Your task to perform on an android device: open app "LiveIn - Share Your Moment" Image 0: 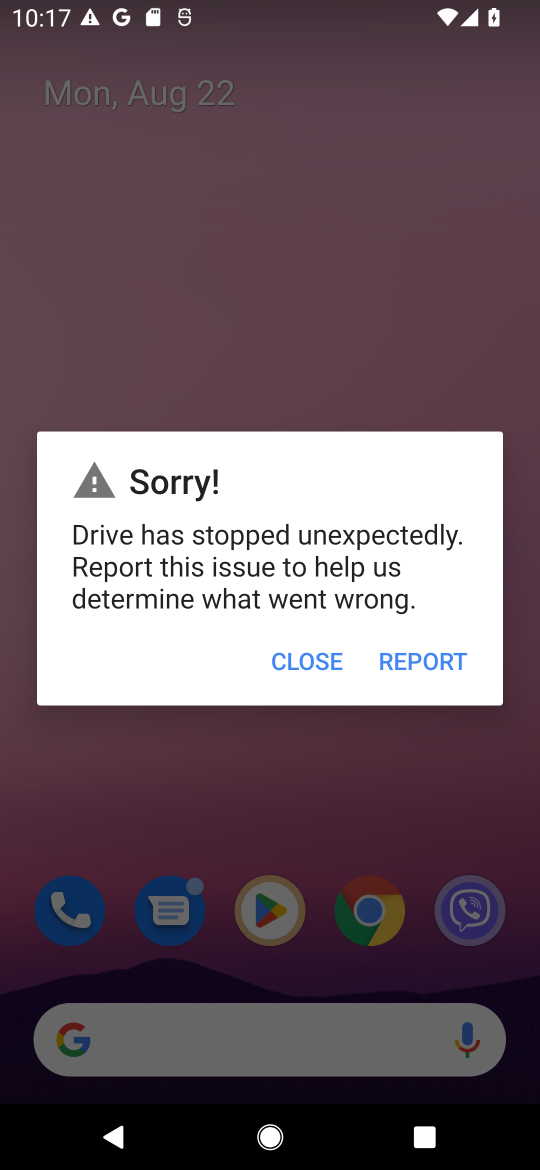
Step 0: click (296, 665)
Your task to perform on an android device: open app "LiveIn - Share Your Moment" Image 1: 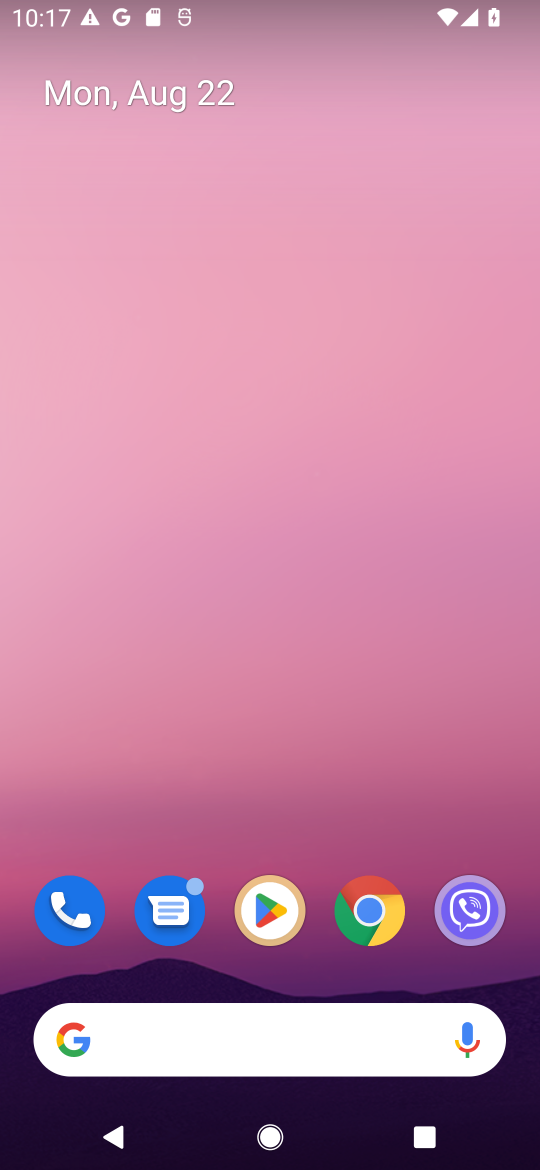
Step 1: click (269, 905)
Your task to perform on an android device: open app "LiveIn - Share Your Moment" Image 2: 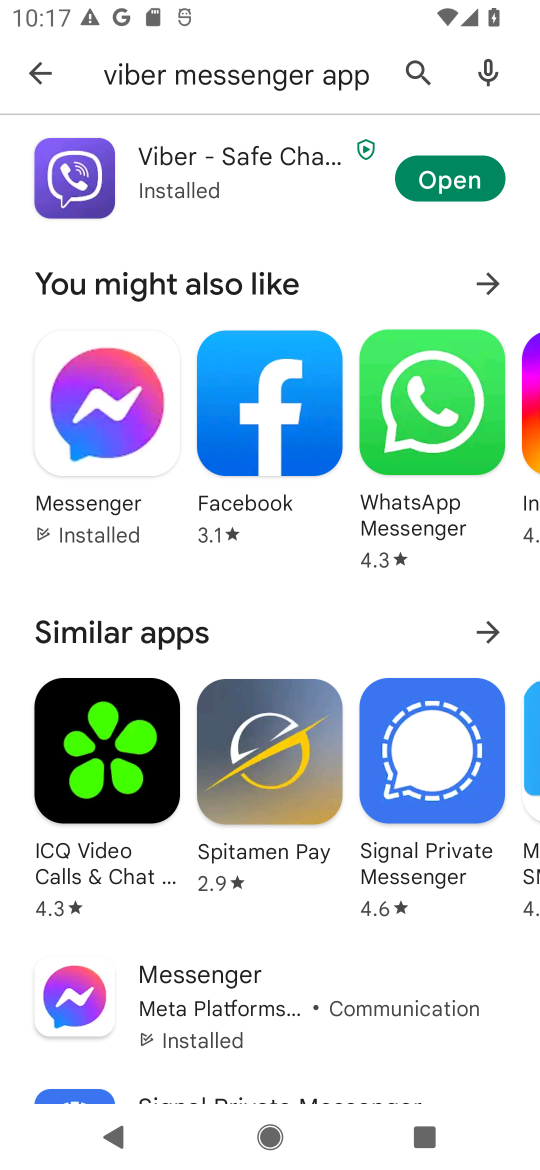
Step 2: click (400, 75)
Your task to perform on an android device: open app "LiveIn - Share Your Moment" Image 3: 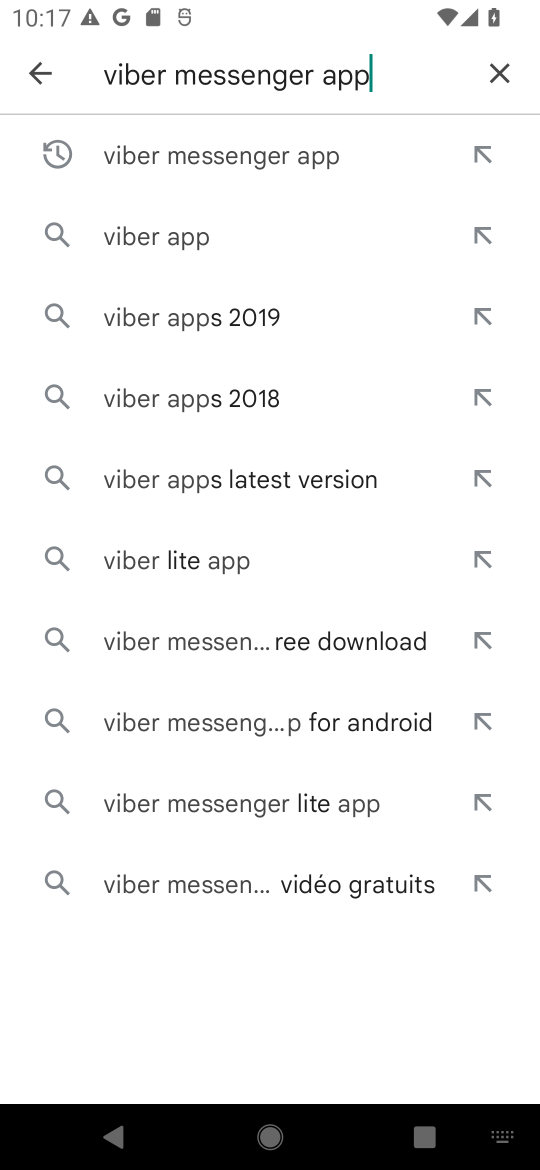
Step 3: click (489, 66)
Your task to perform on an android device: open app "LiveIn - Share Your Moment" Image 4: 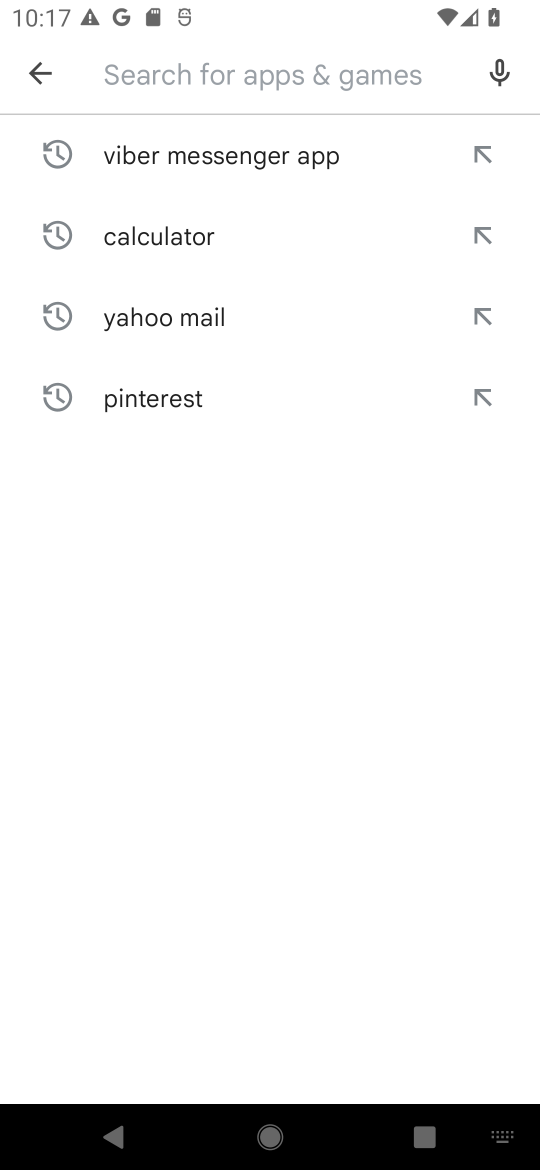
Step 4: type "LiveIn - Share Your Moment"
Your task to perform on an android device: open app "LiveIn - Share Your Moment" Image 5: 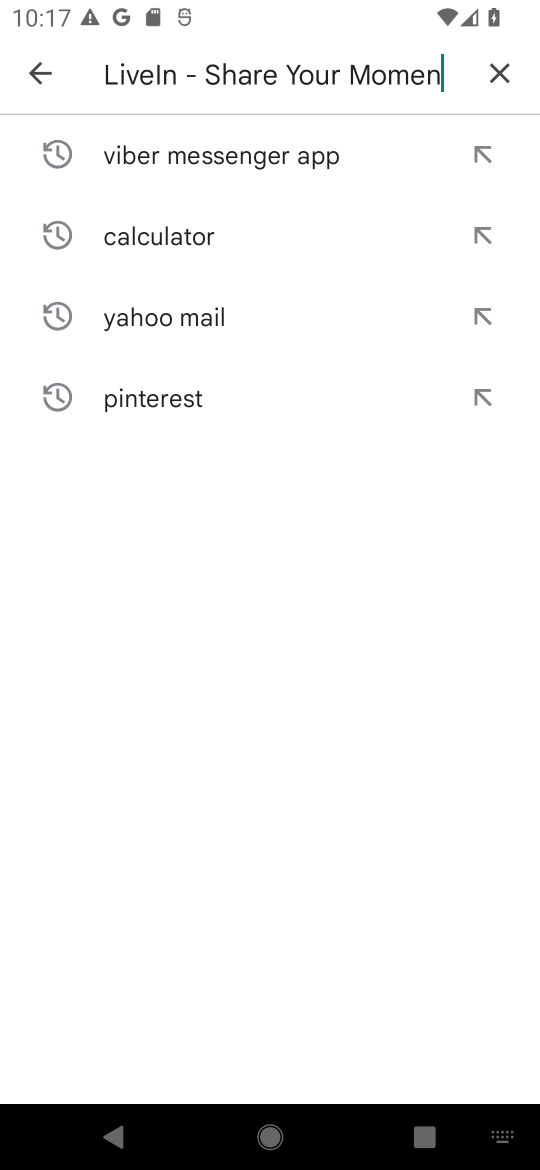
Step 5: type ""
Your task to perform on an android device: open app "LiveIn - Share Your Moment" Image 6: 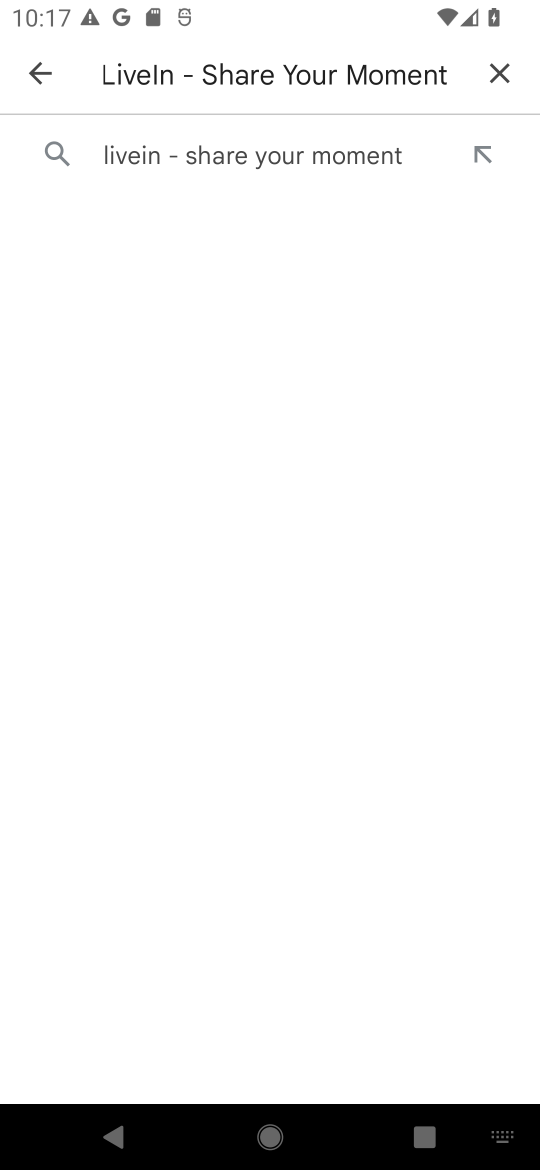
Step 6: click (157, 168)
Your task to perform on an android device: open app "LiveIn - Share Your Moment" Image 7: 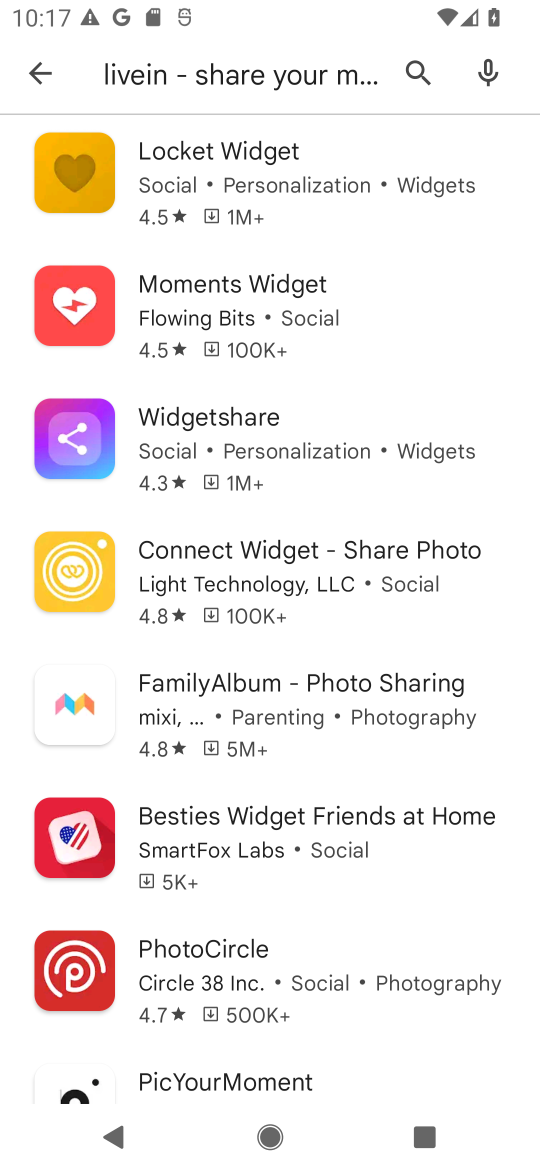
Step 7: task complete